Your task to perform on an android device: Open settings on Google Maps Image 0: 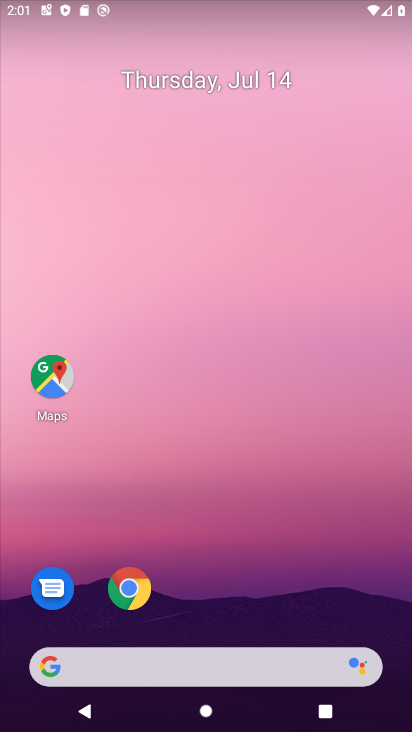
Step 0: drag from (153, 716) to (131, 332)
Your task to perform on an android device: Open settings on Google Maps Image 1: 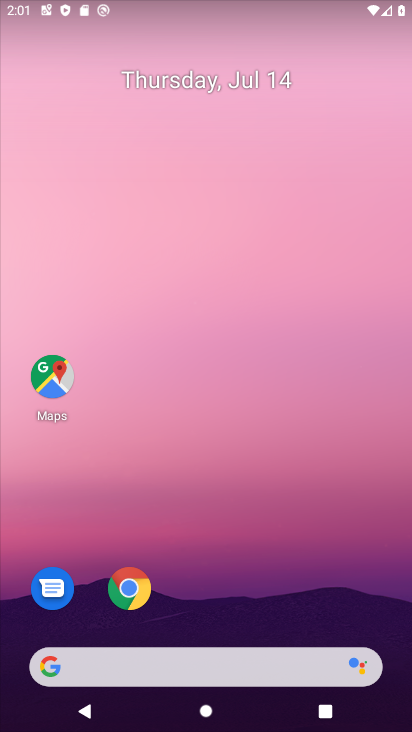
Step 1: drag from (153, 716) to (152, 145)
Your task to perform on an android device: Open settings on Google Maps Image 2: 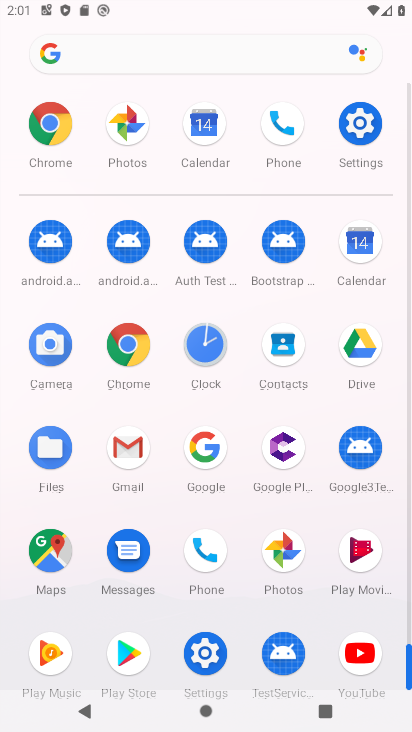
Step 2: click (51, 533)
Your task to perform on an android device: Open settings on Google Maps Image 3: 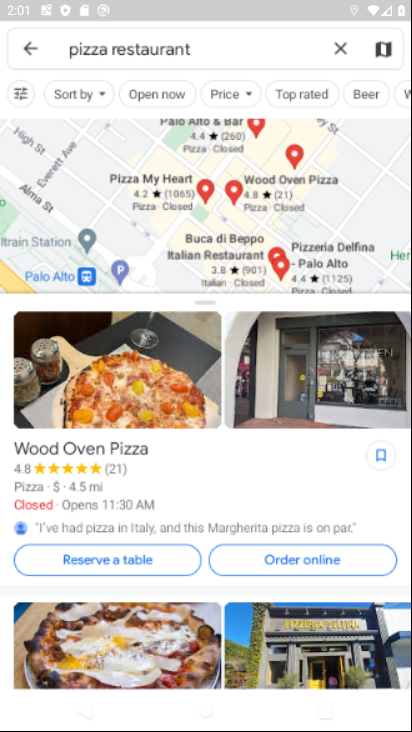
Step 3: click (344, 44)
Your task to perform on an android device: Open settings on Google Maps Image 4: 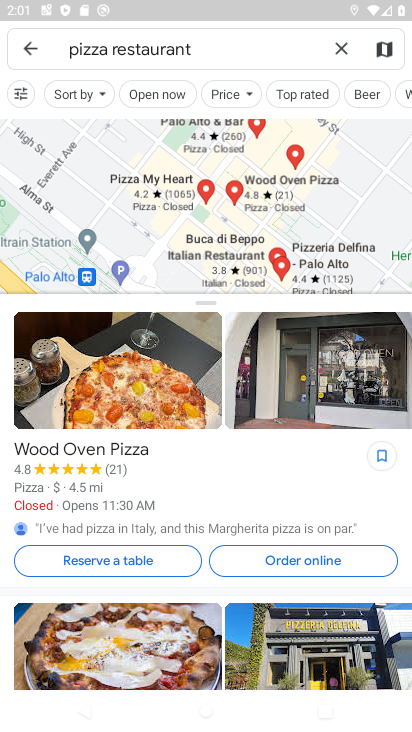
Step 4: click (338, 47)
Your task to perform on an android device: Open settings on Google Maps Image 5: 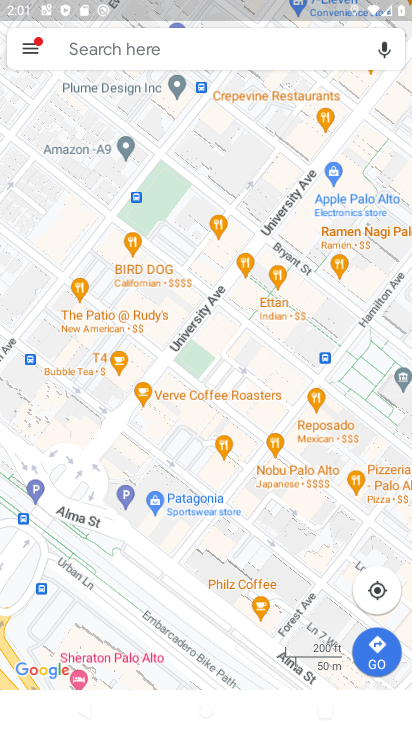
Step 5: click (29, 40)
Your task to perform on an android device: Open settings on Google Maps Image 6: 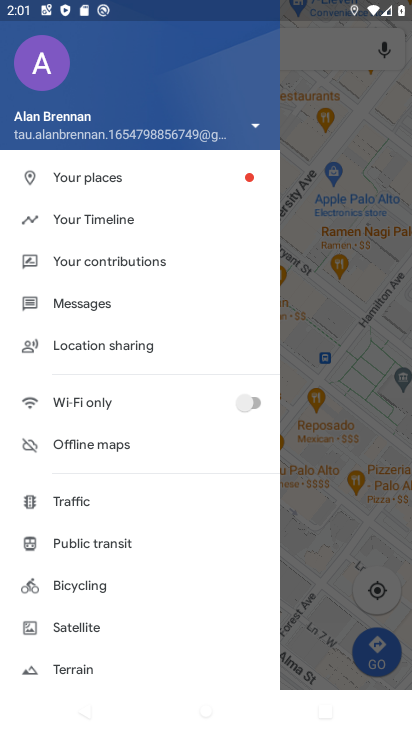
Step 6: drag from (107, 648) to (108, 219)
Your task to perform on an android device: Open settings on Google Maps Image 7: 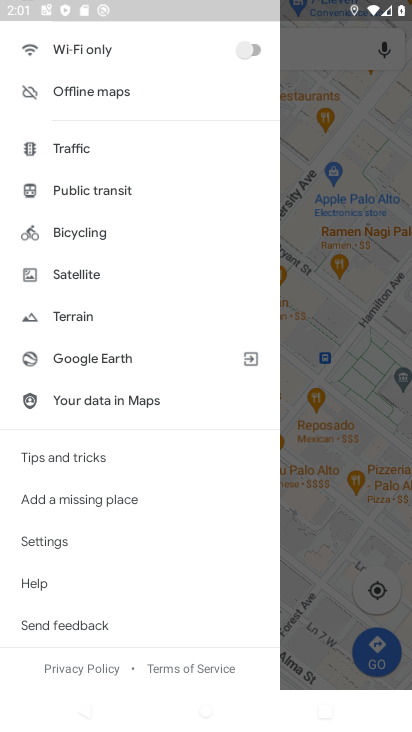
Step 7: click (68, 537)
Your task to perform on an android device: Open settings on Google Maps Image 8: 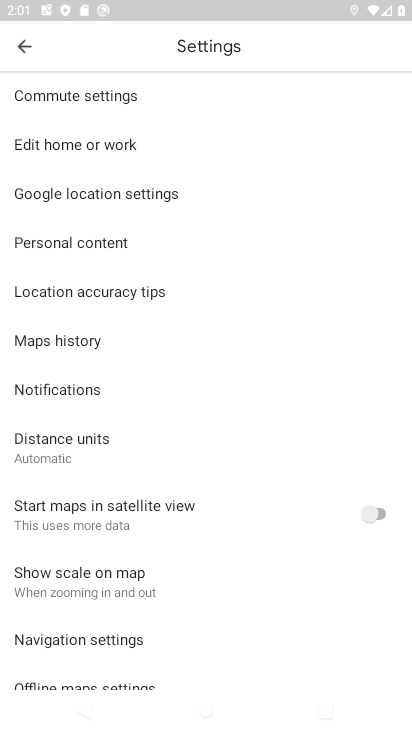
Step 8: task complete